Your task to perform on an android device: Open battery settings Image 0: 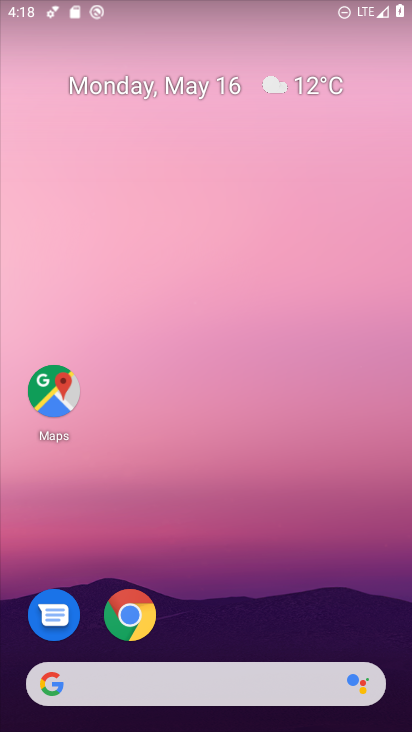
Step 0: drag from (221, 726) to (225, 149)
Your task to perform on an android device: Open battery settings Image 1: 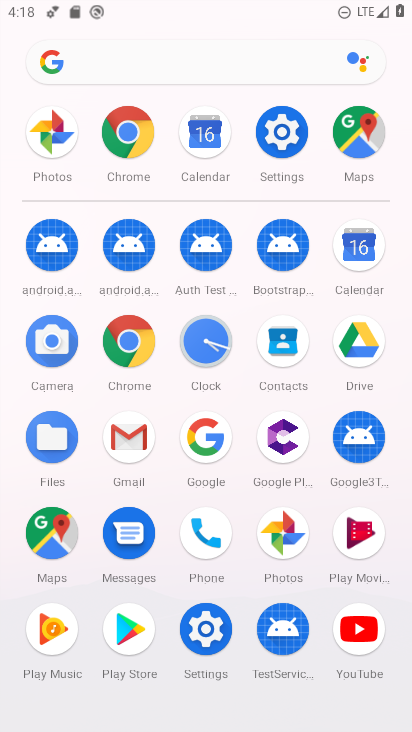
Step 1: click (272, 137)
Your task to perform on an android device: Open battery settings Image 2: 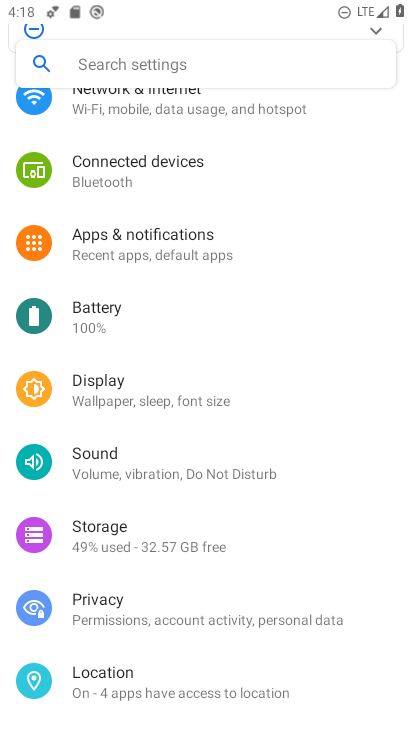
Step 2: click (79, 309)
Your task to perform on an android device: Open battery settings Image 3: 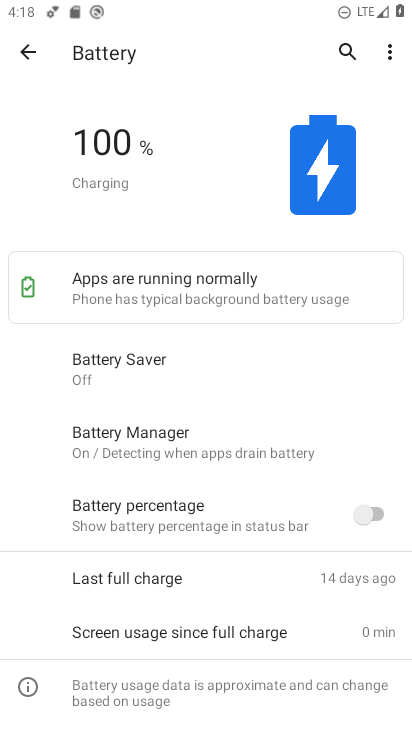
Step 3: task complete